Your task to perform on an android device: move a message to another label in the gmail app Image 0: 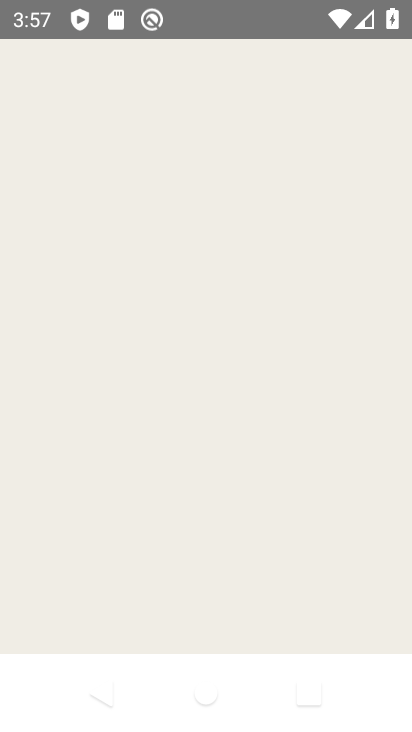
Step 0: click (219, 18)
Your task to perform on an android device: move a message to another label in the gmail app Image 1: 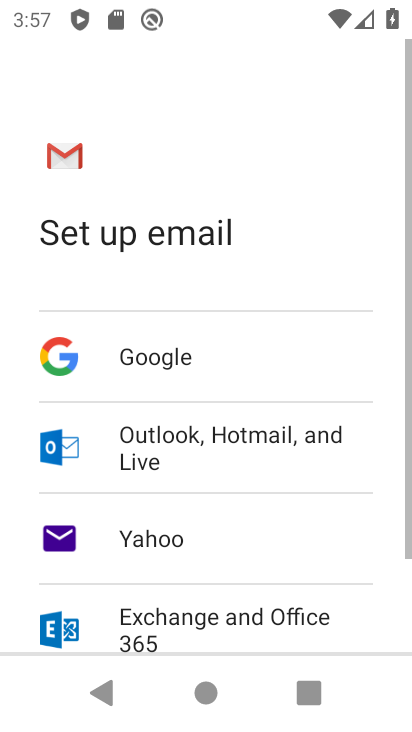
Step 1: click (105, 689)
Your task to perform on an android device: move a message to another label in the gmail app Image 2: 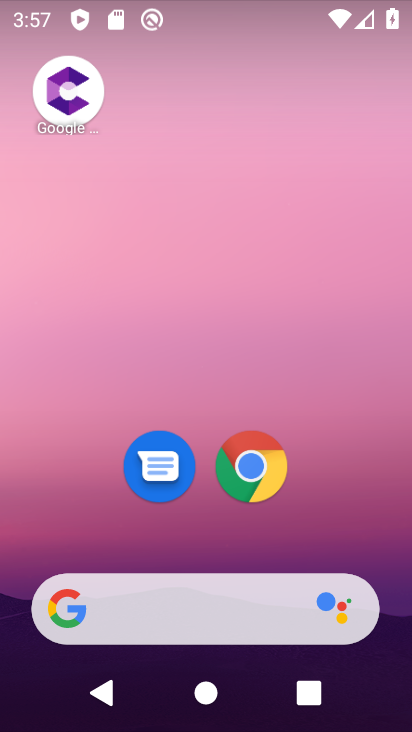
Step 2: drag from (375, 559) to (286, 59)
Your task to perform on an android device: move a message to another label in the gmail app Image 3: 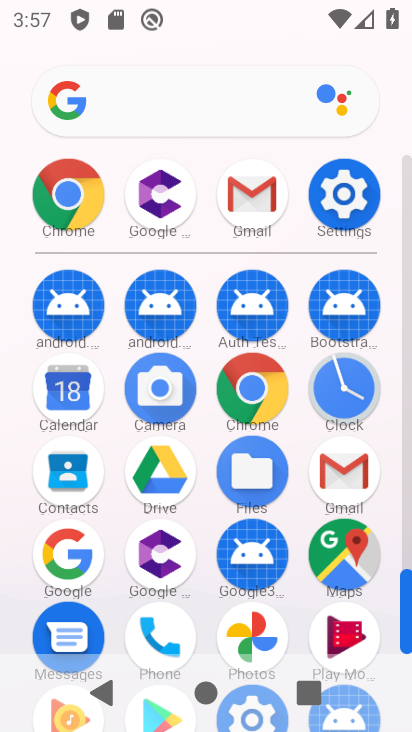
Step 3: click (247, 191)
Your task to perform on an android device: move a message to another label in the gmail app Image 4: 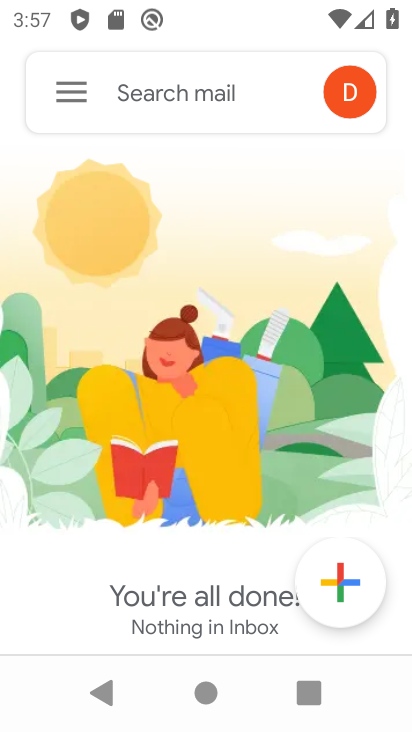
Step 4: click (80, 83)
Your task to perform on an android device: move a message to another label in the gmail app Image 5: 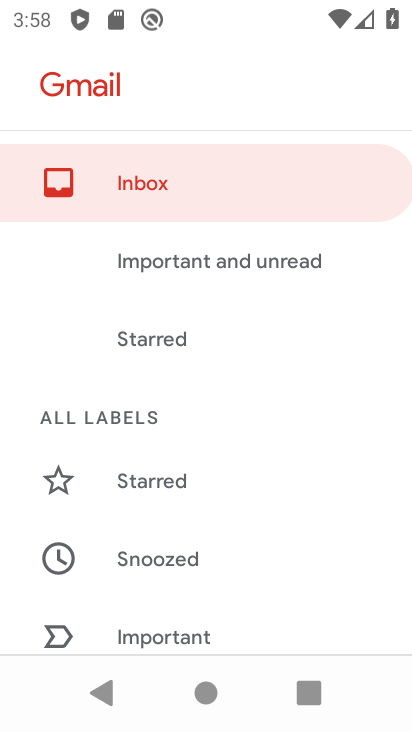
Step 5: drag from (293, 359) to (251, 19)
Your task to perform on an android device: move a message to another label in the gmail app Image 6: 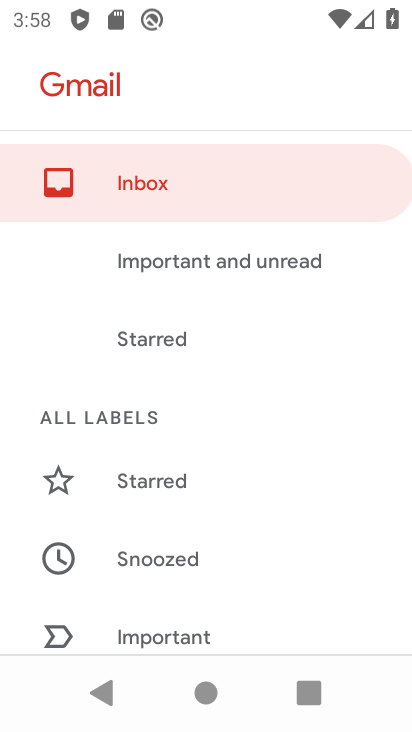
Step 6: drag from (277, 397) to (273, 39)
Your task to perform on an android device: move a message to another label in the gmail app Image 7: 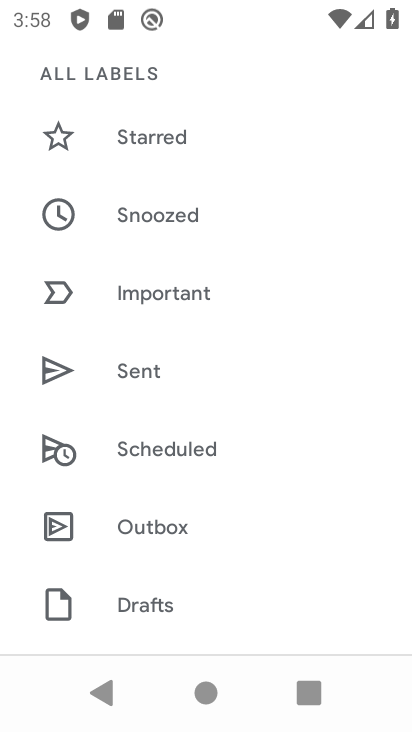
Step 7: drag from (254, 509) to (248, 219)
Your task to perform on an android device: move a message to another label in the gmail app Image 8: 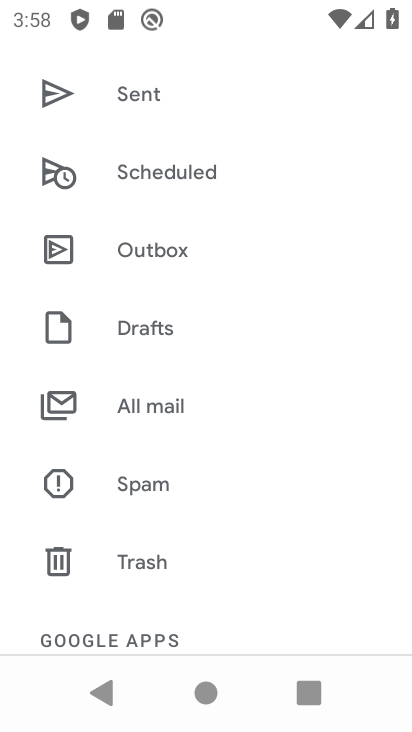
Step 8: drag from (232, 580) to (207, 148)
Your task to perform on an android device: move a message to another label in the gmail app Image 9: 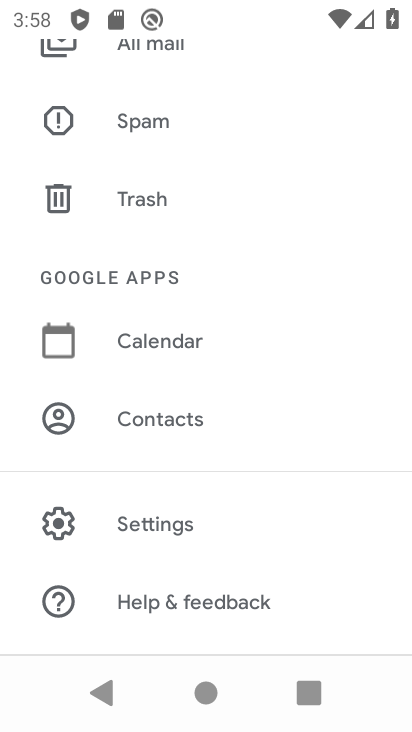
Step 9: click (192, 49)
Your task to perform on an android device: move a message to another label in the gmail app Image 10: 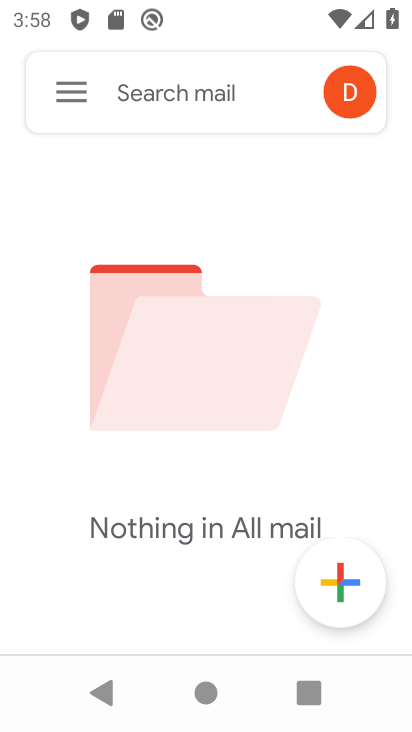
Step 10: task complete